Your task to perform on an android device: change alarm snooze length Image 0: 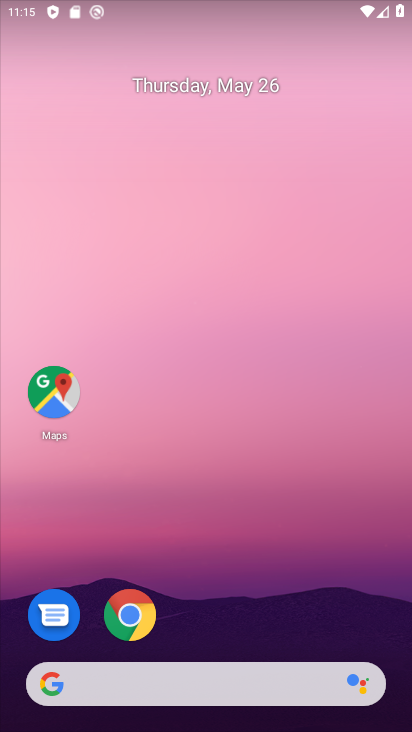
Step 0: drag from (266, 631) to (268, 42)
Your task to perform on an android device: change alarm snooze length Image 1: 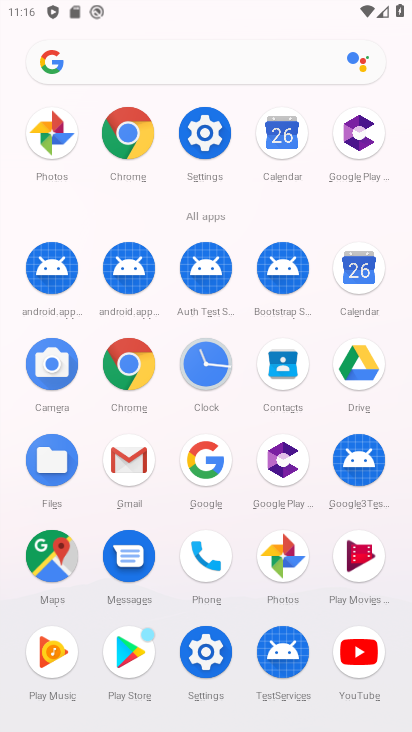
Step 1: click (217, 365)
Your task to perform on an android device: change alarm snooze length Image 2: 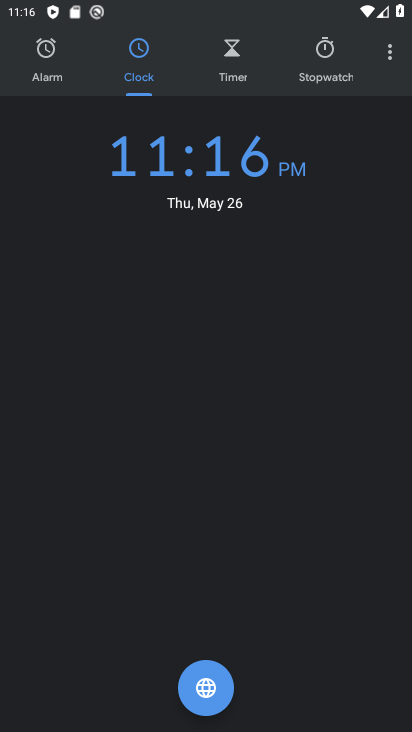
Step 2: click (392, 54)
Your task to perform on an android device: change alarm snooze length Image 3: 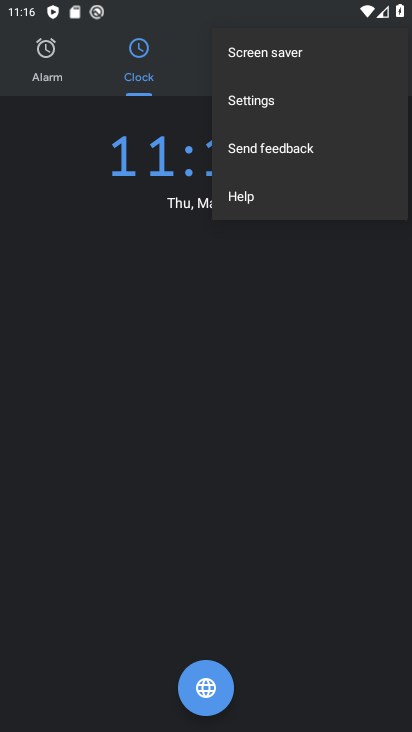
Step 3: click (331, 102)
Your task to perform on an android device: change alarm snooze length Image 4: 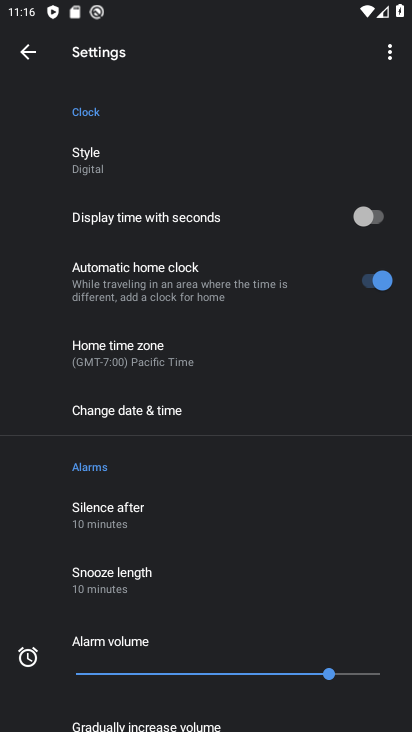
Step 4: click (210, 584)
Your task to perform on an android device: change alarm snooze length Image 5: 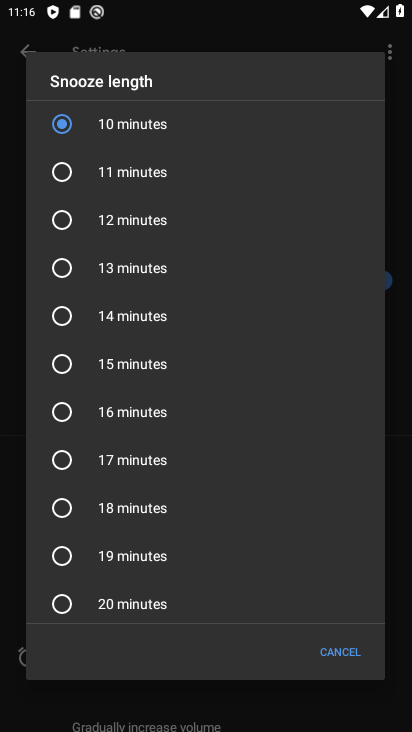
Step 5: click (177, 509)
Your task to perform on an android device: change alarm snooze length Image 6: 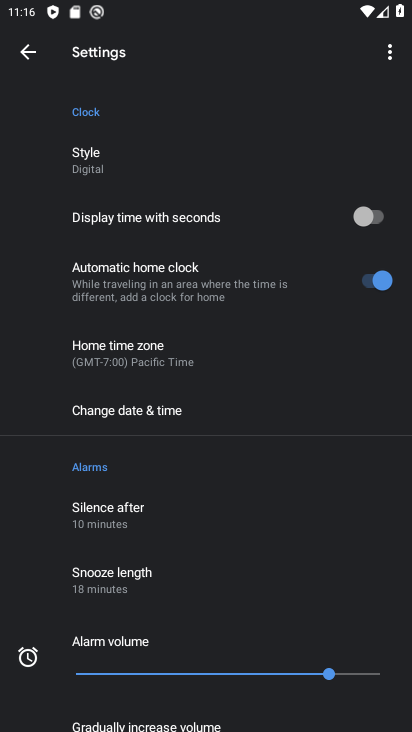
Step 6: task complete